Your task to perform on an android device: Turn on notifications for the Google Maps app Image 0: 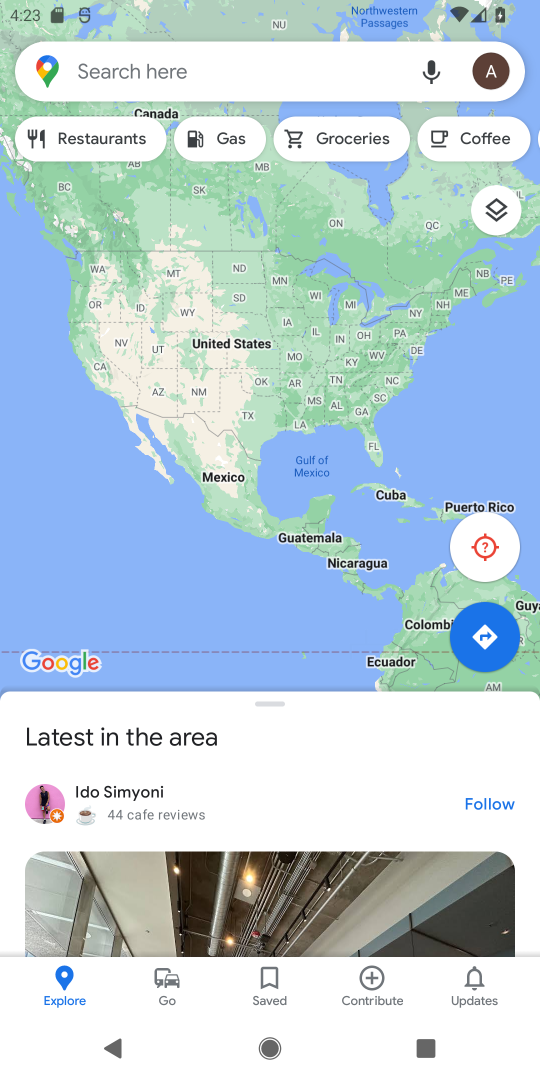
Step 0: press home button
Your task to perform on an android device: Turn on notifications for the Google Maps app Image 1: 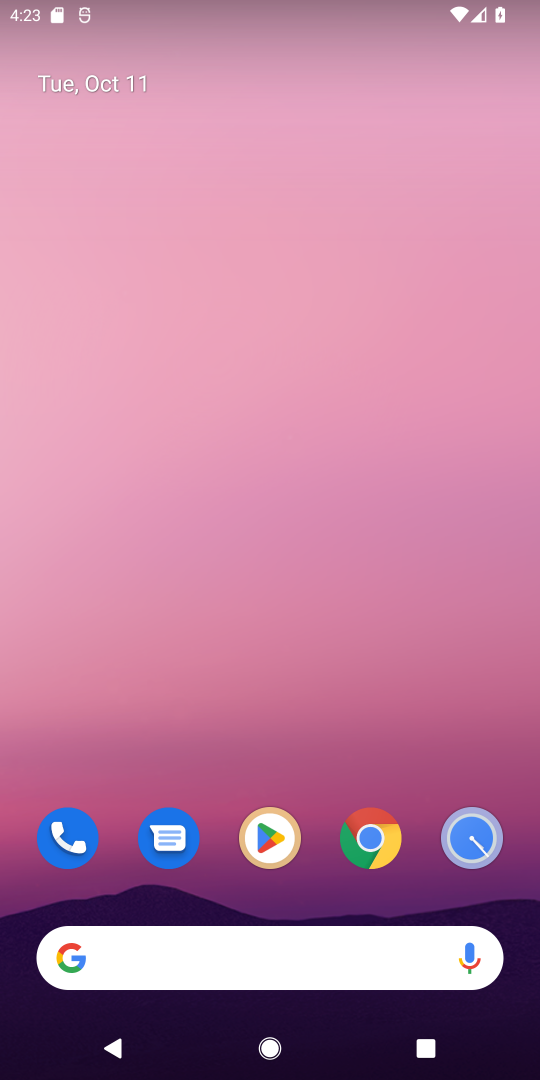
Step 1: drag from (261, 587) to (306, 301)
Your task to perform on an android device: Turn on notifications for the Google Maps app Image 2: 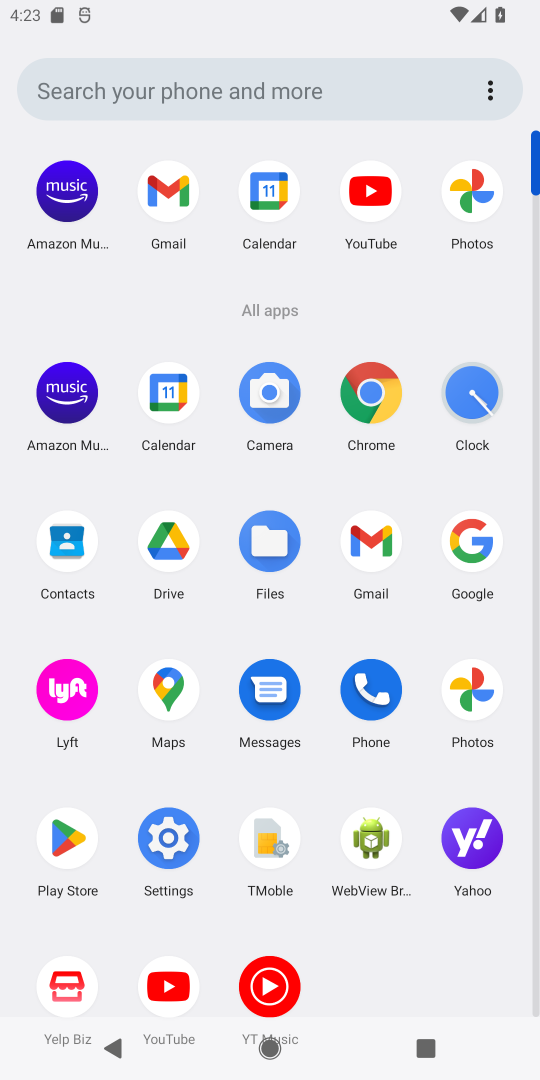
Step 2: click (185, 680)
Your task to perform on an android device: Turn on notifications for the Google Maps app Image 3: 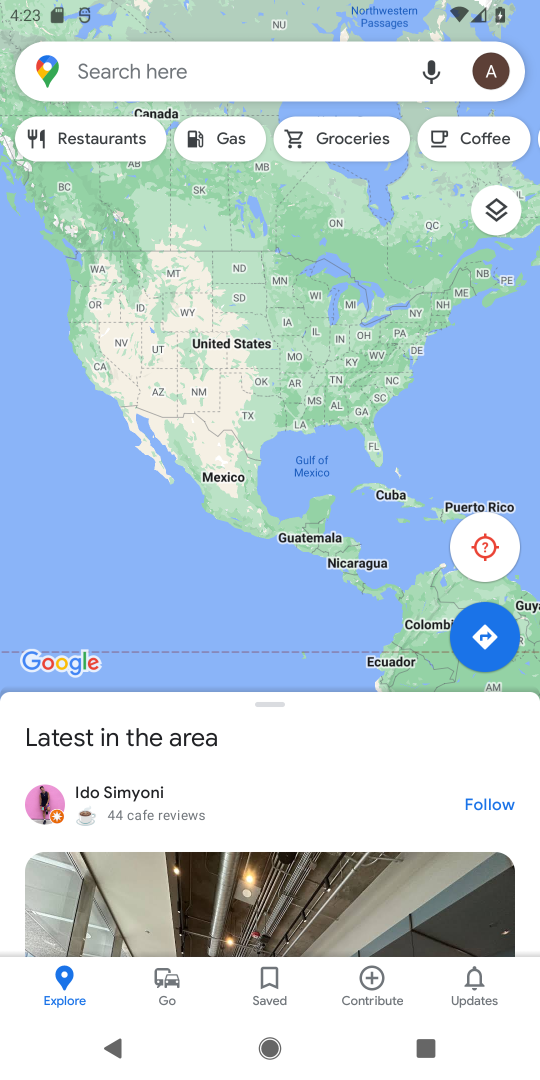
Step 3: click (484, 76)
Your task to perform on an android device: Turn on notifications for the Google Maps app Image 4: 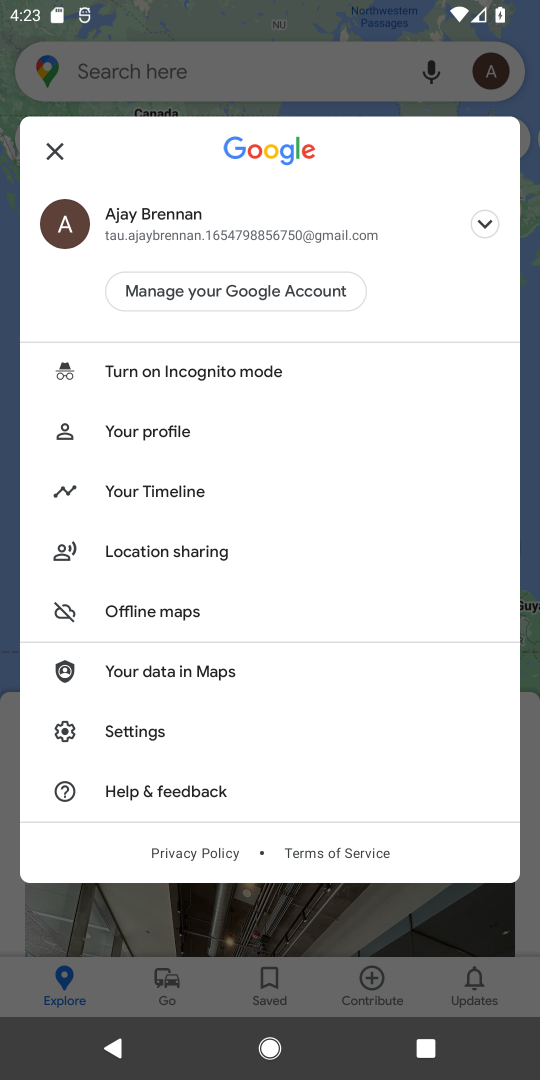
Step 4: drag from (263, 730) to (339, 476)
Your task to perform on an android device: Turn on notifications for the Google Maps app Image 5: 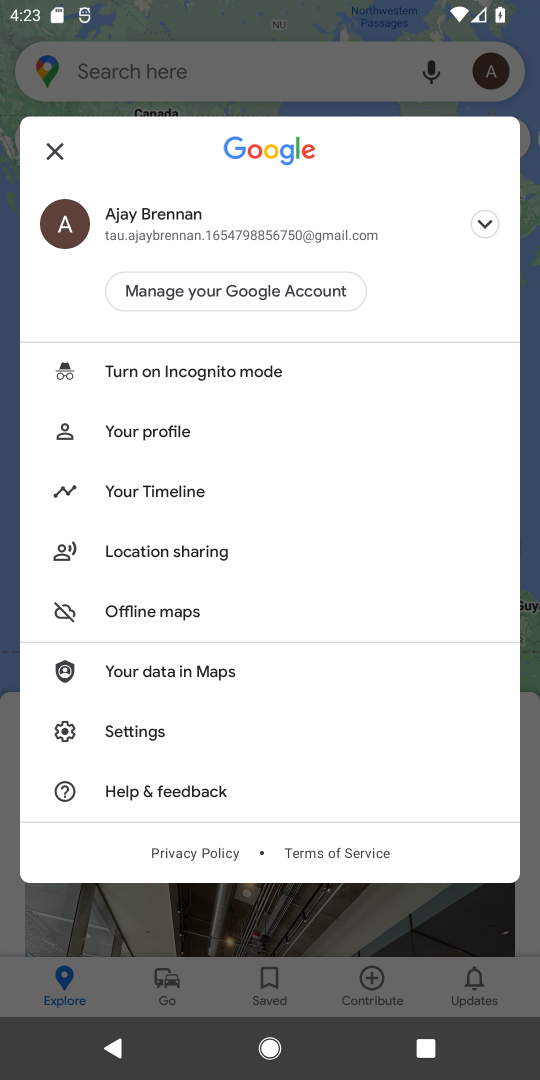
Step 5: click (50, 144)
Your task to perform on an android device: Turn on notifications for the Google Maps app Image 6: 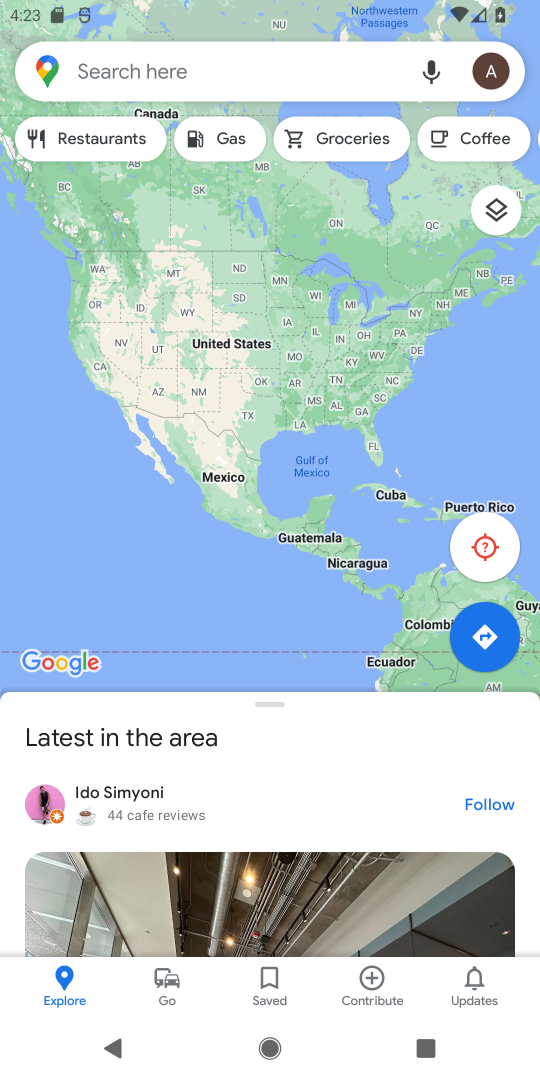
Step 6: drag from (176, 733) to (281, 260)
Your task to perform on an android device: Turn on notifications for the Google Maps app Image 7: 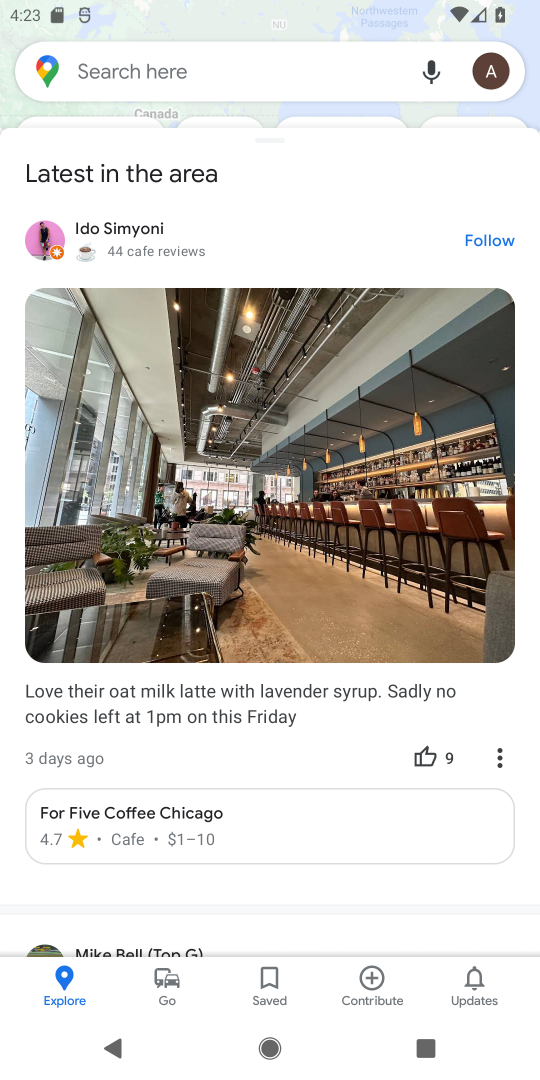
Step 7: drag from (253, 789) to (282, 426)
Your task to perform on an android device: Turn on notifications for the Google Maps app Image 8: 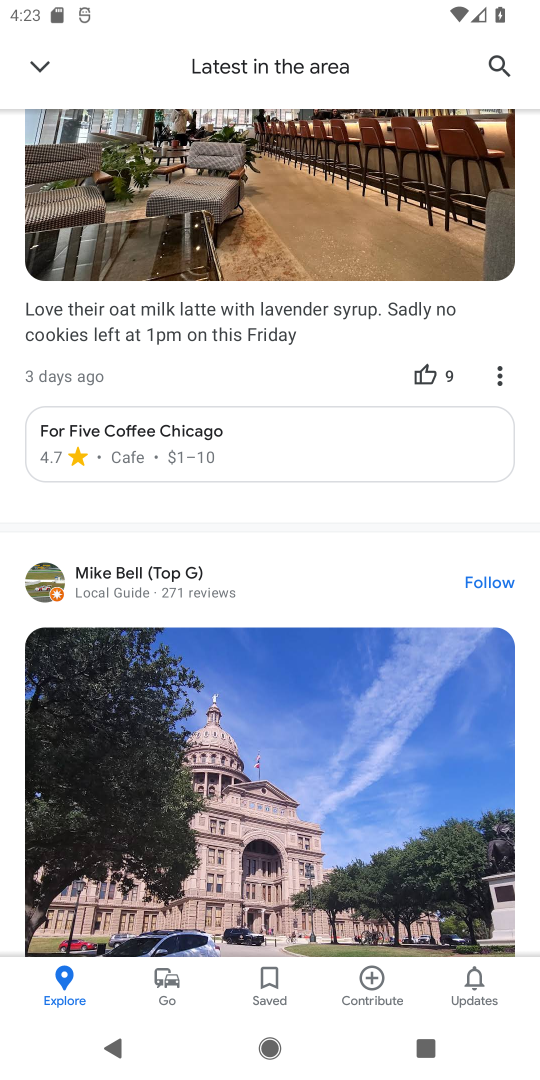
Step 8: drag from (196, 712) to (214, 411)
Your task to perform on an android device: Turn on notifications for the Google Maps app Image 9: 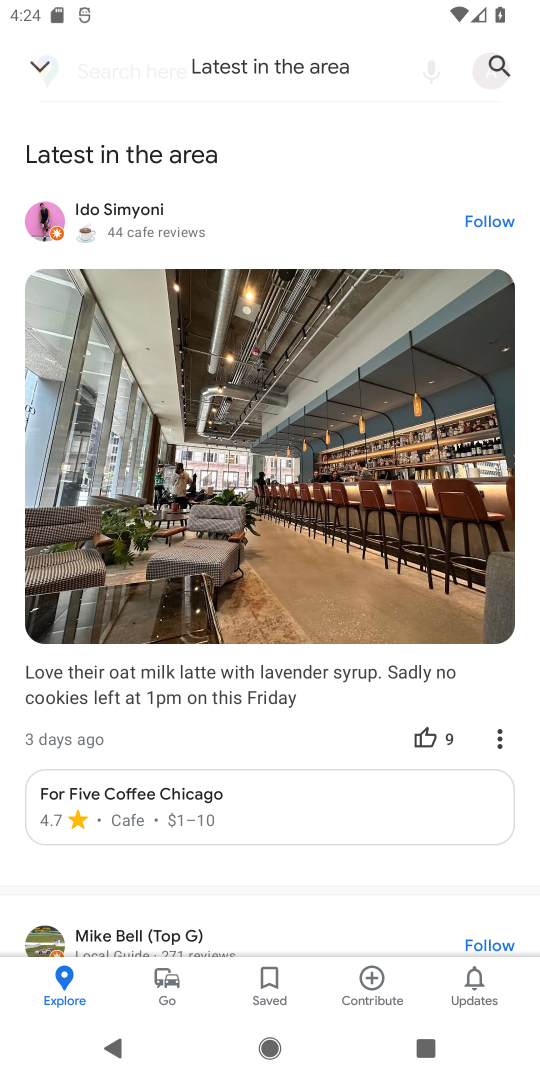
Step 9: drag from (203, 689) to (283, 336)
Your task to perform on an android device: Turn on notifications for the Google Maps app Image 10: 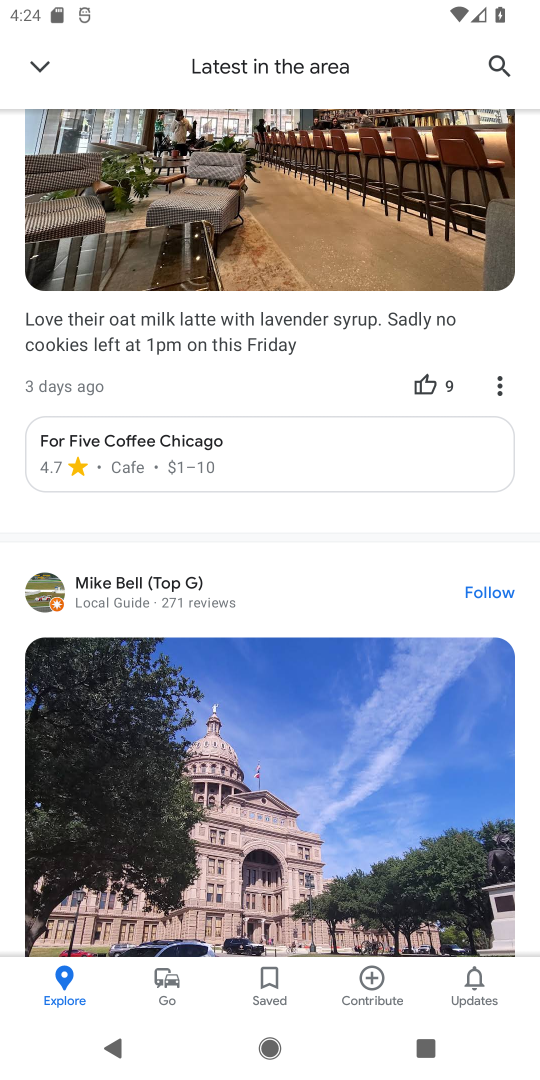
Step 10: drag from (190, 827) to (295, 340)
Your task to perform on an android device: Turn on notifications for the Google Maps app Image 11: 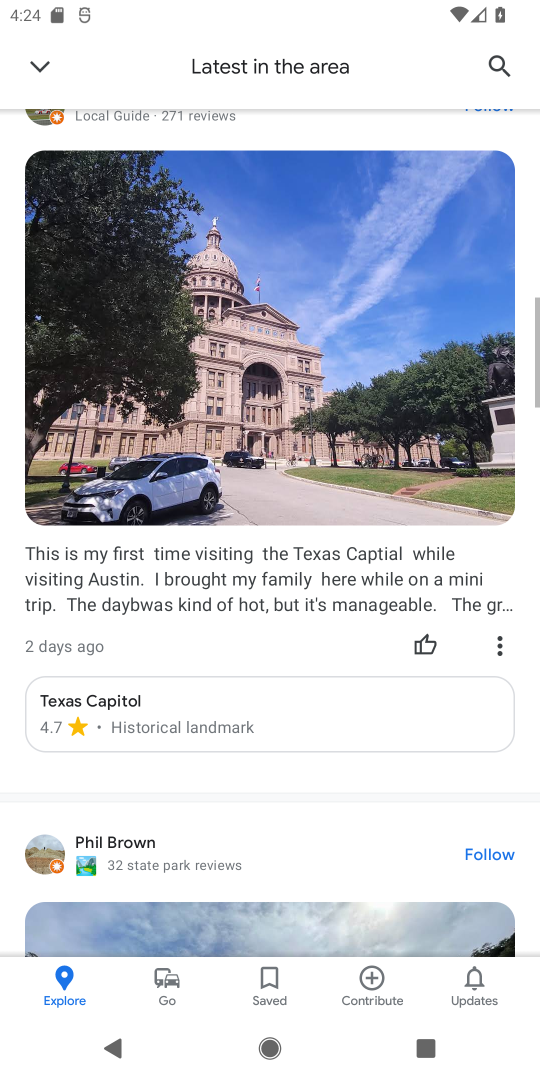
Step 11: drag from (284, 618) to (365, 333)
Your task to perform on an android device: Turn on notifications for the Google Maps app Image 12: 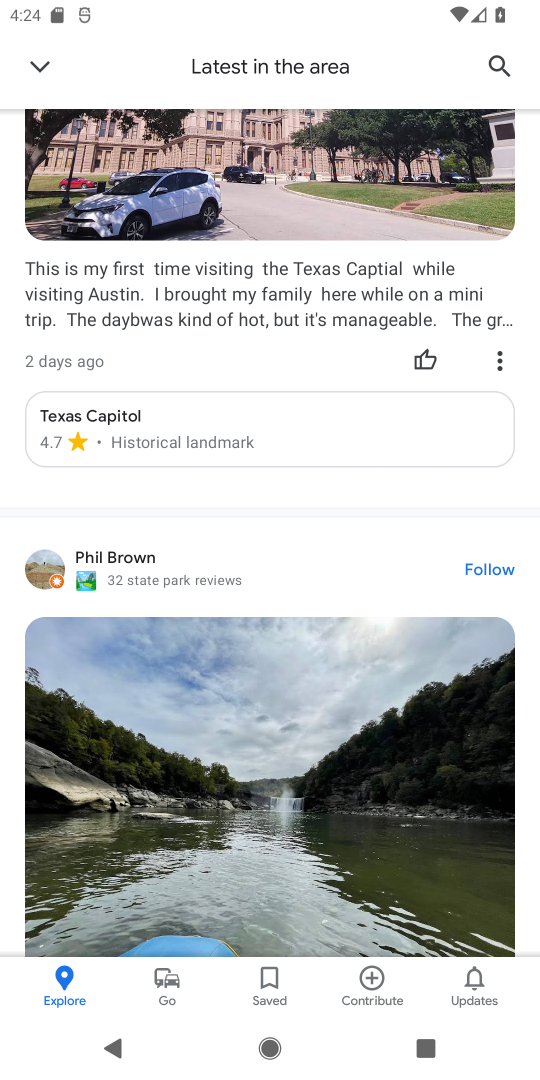
Step 12: drag from (228, 789) to (324, 369)
Your task to perform on an android device: Turn on notifications for the Google Maps app Image 13: 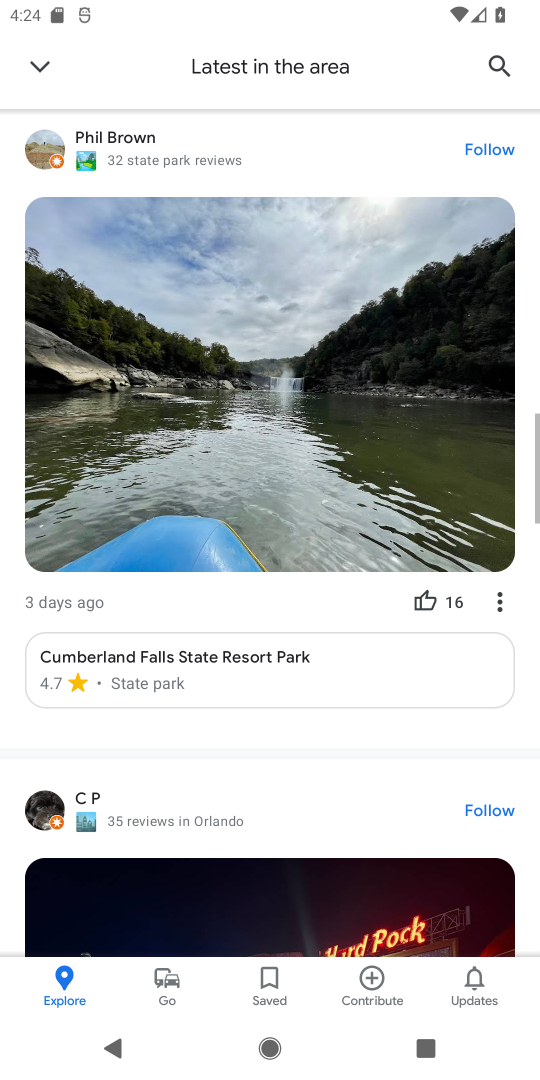
Step 13: drag from (268, 663) to (314, 316)
Your task to perform on an android device: Turn on notifications for the Google Maps app Image 14: 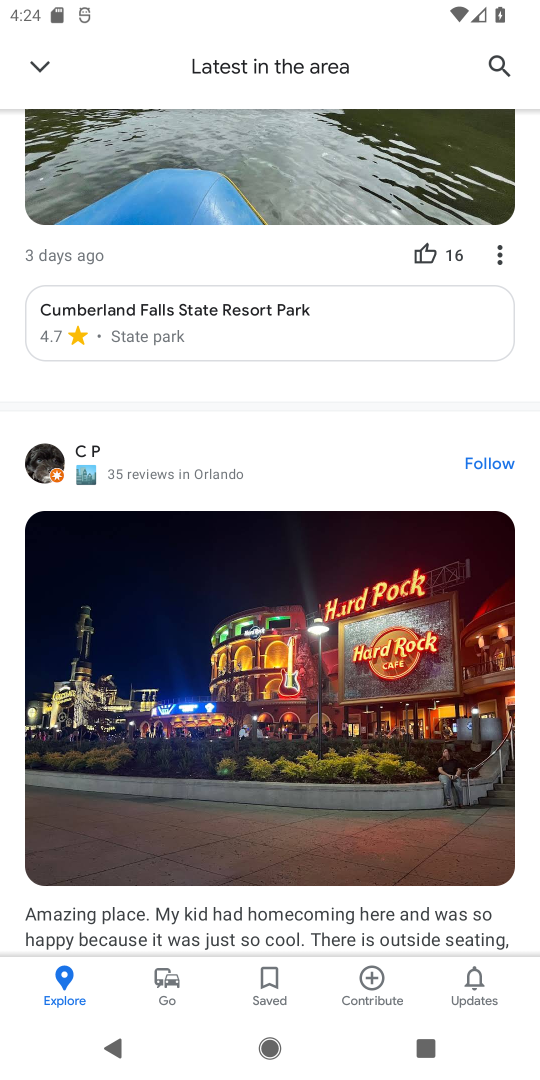
Step 14: drag from (190, 701) to (227, 462)
Your task to perform on an android device: Turn on notifications for the Google Maps app Image 15: 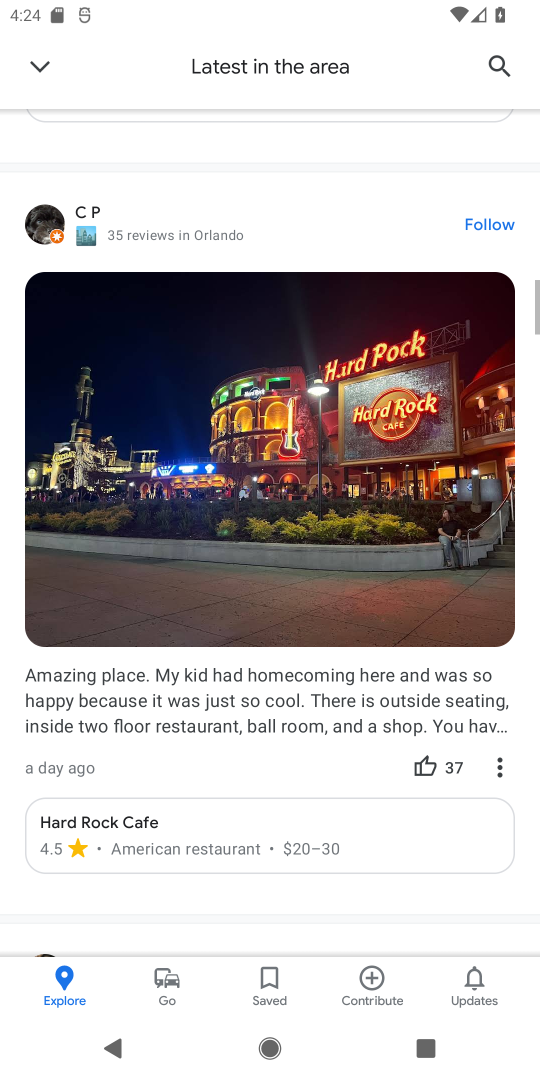
Step 15: drag from (196, 893) to (381, 475)
Your task to perform on an android device: Turn on notifications for the Google Maps app Image 16: 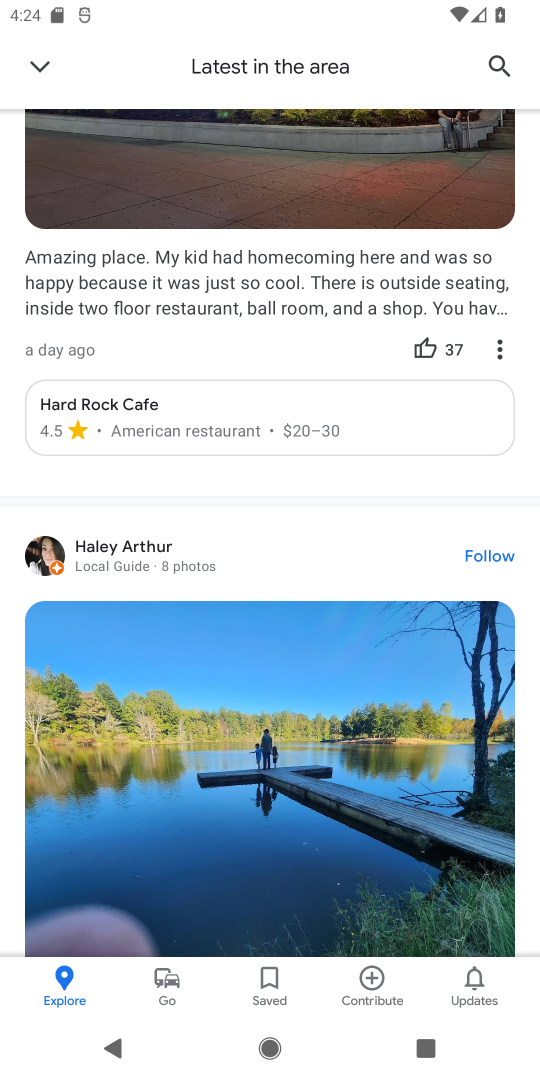
Step 16: drag from (233, 676) to (270, 482)
Your task to perform on an android device: Turn on notifications for the Google Maps app Image 17: 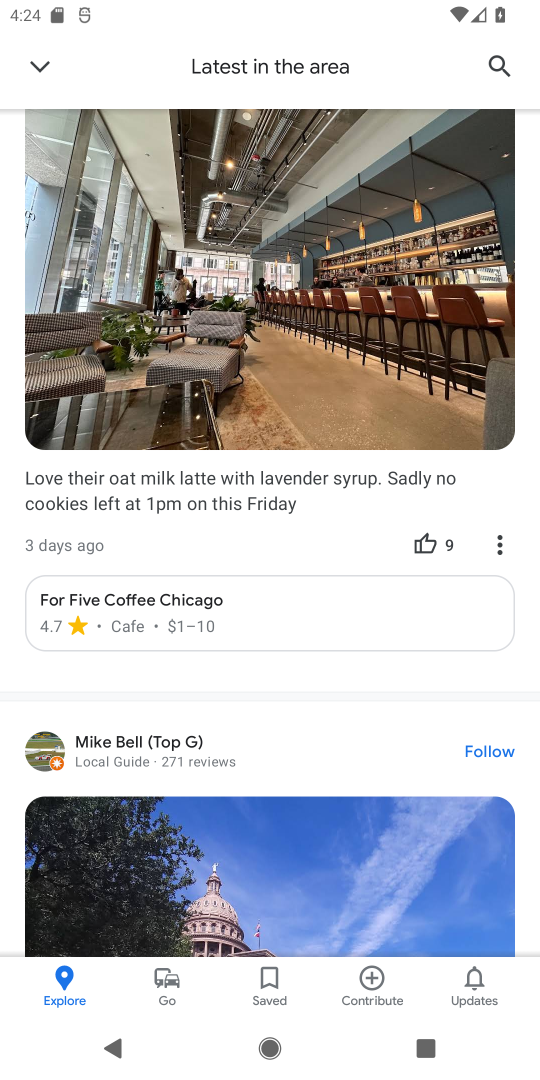
Step 17: drag from (201, 734) to (222, 658)
Your task to perform on an android device: Turn on notifications for the Google Maps app Image 18: 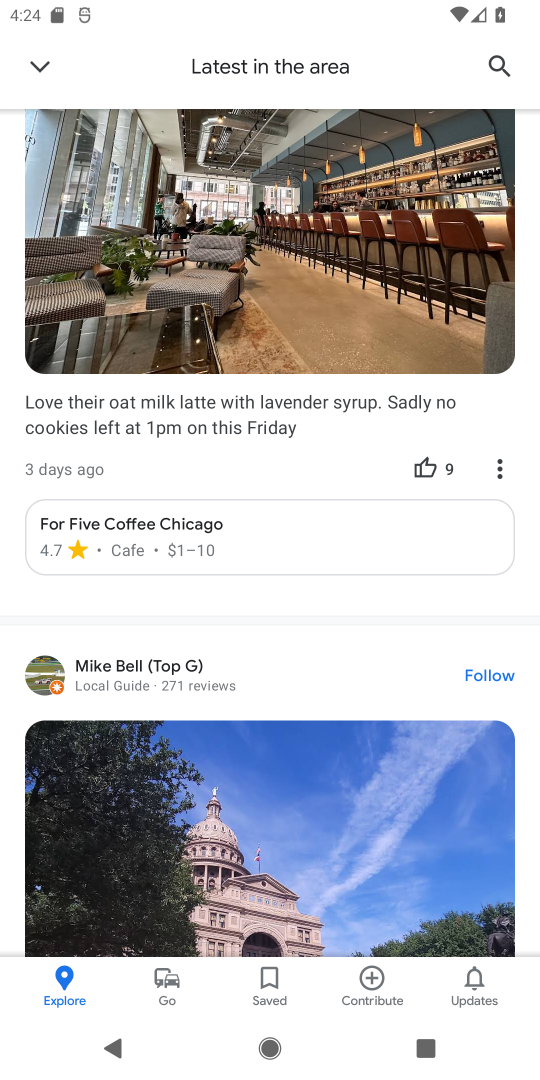
Step 18: drag from (156, 750) to (272, 293)
Your task to perform on an android device: Turn on notifications for the Google Maps app Image 19: 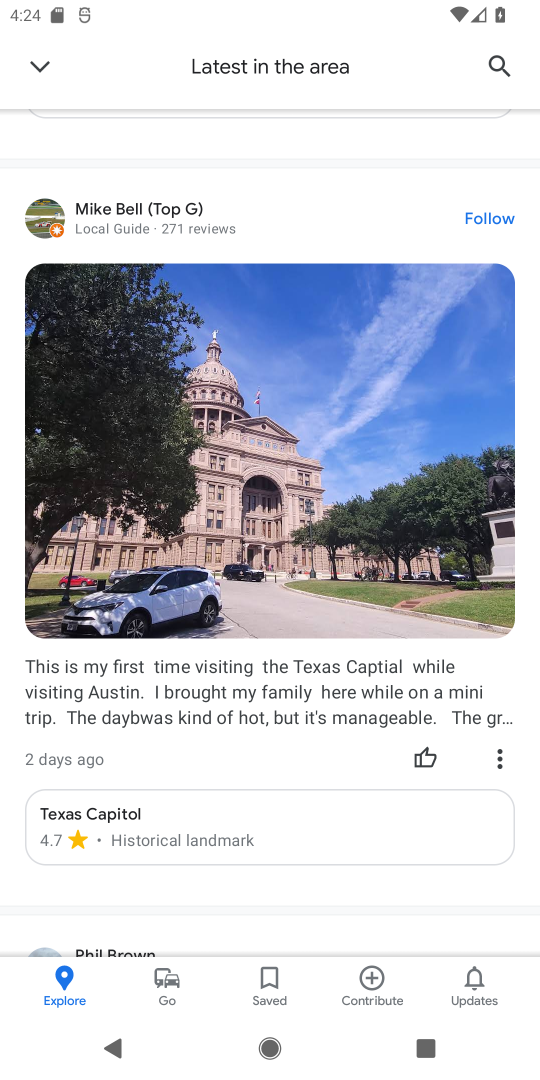
Step 19: drag from (246, 585) to (272, 348)
Your task to perform on an android device: Turn on notifications for the Google Maps app Image 20: 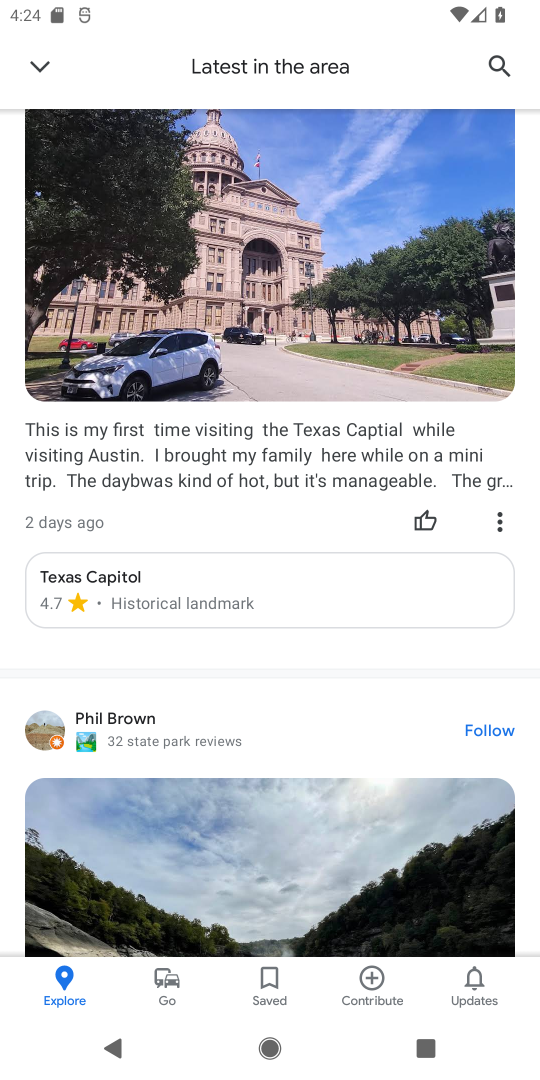
Step 20: drag from (197, 668) to (261, 425)
Your task to perform on an android device: Turn on notifications for the Google Maps app Image 21: 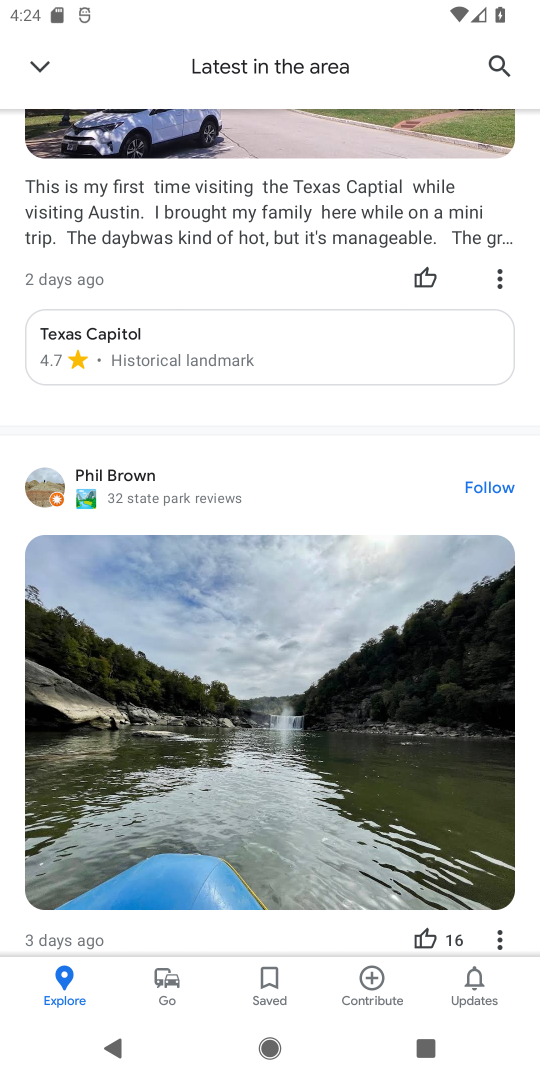
Step 21: drag from (348, 785) to (360, 537)
Your task to perform on an android device: Turn on notifications for the Google Maps app Image 22: 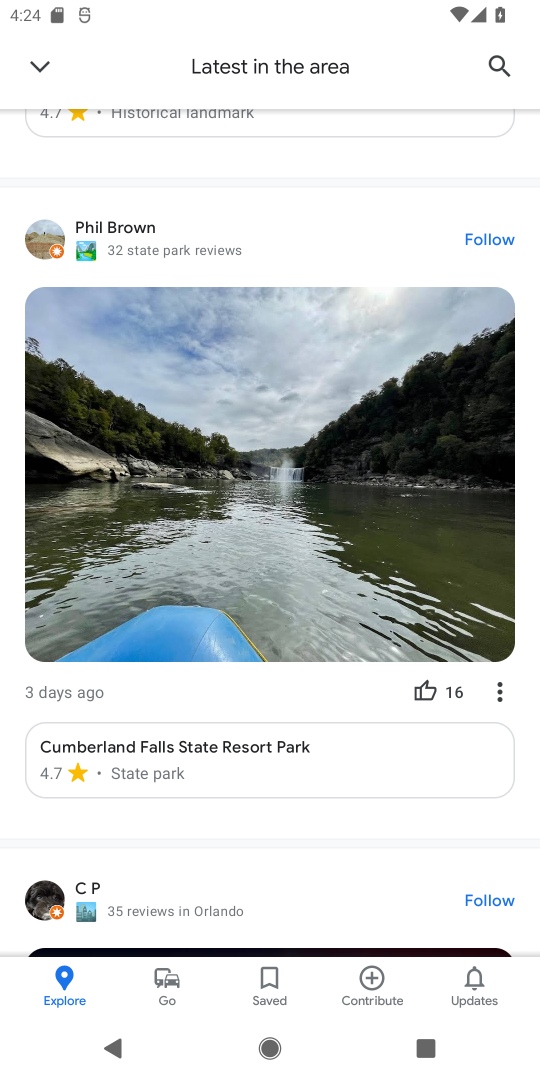
Step 22: drag from (115, 868) to (241, 266)
Your task to perform on an android device: Turn on notifications for the Google Maps app Image 23: 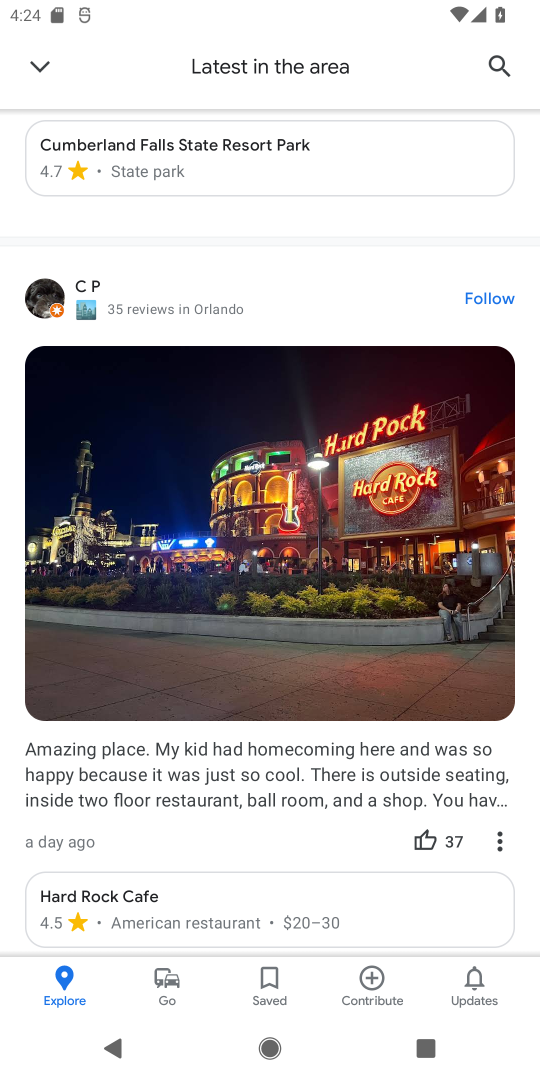
Step 23: drag from (148, 782) to (229, 373)
Your task to perform on an android device: Turn on notifications for the Google Maps app Image 24: 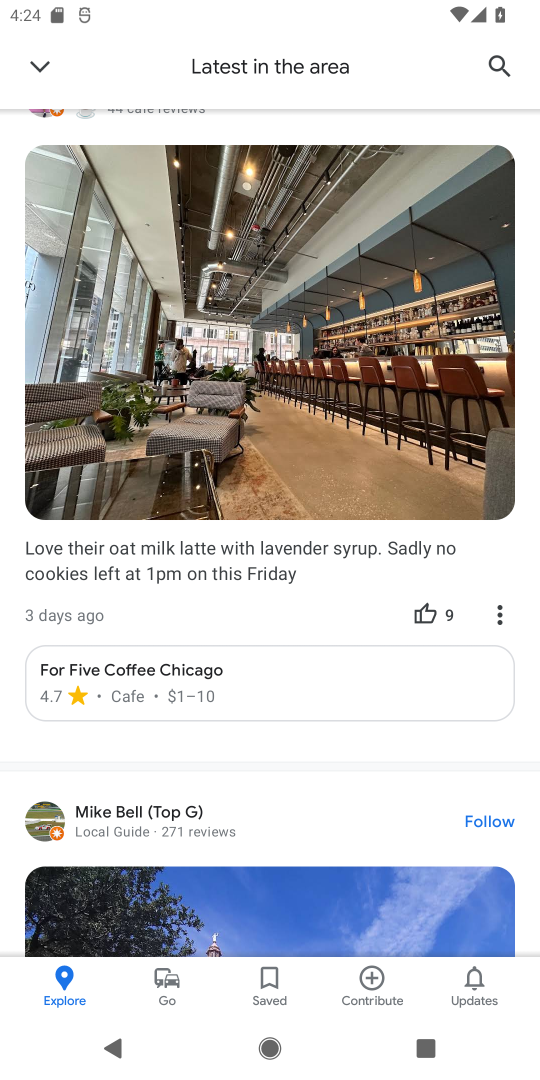
Step 24: drag from (371, 615) to (430, 449)
Your task to perform on an android device: Turn on notifications for the Google Maps app Image 25: 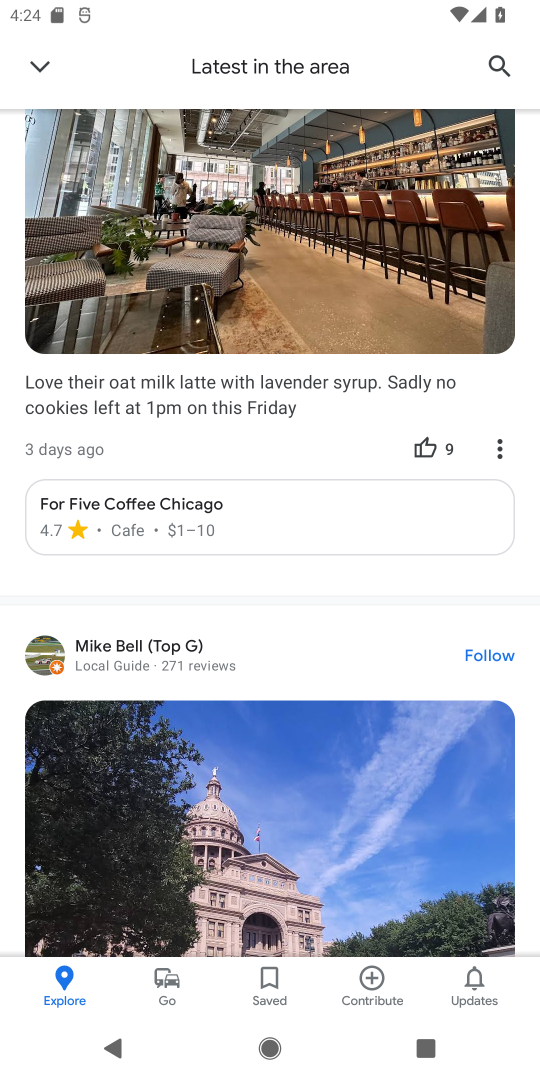
Step 25: drag from (217, 757) to (339, 390)
Your task to perform on an android device: Turn on notifications for the Google Maps app Image 26: 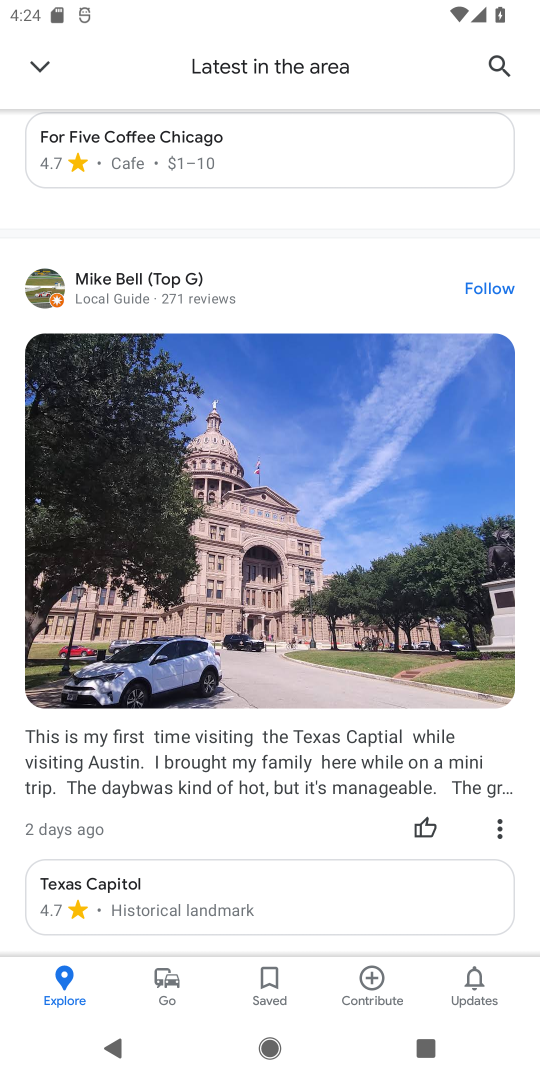
Step 26: drag from (248, 777) to (290, 350)
Your task to perform on an android device: Turn on notifications for the Google Maps app Image 27: 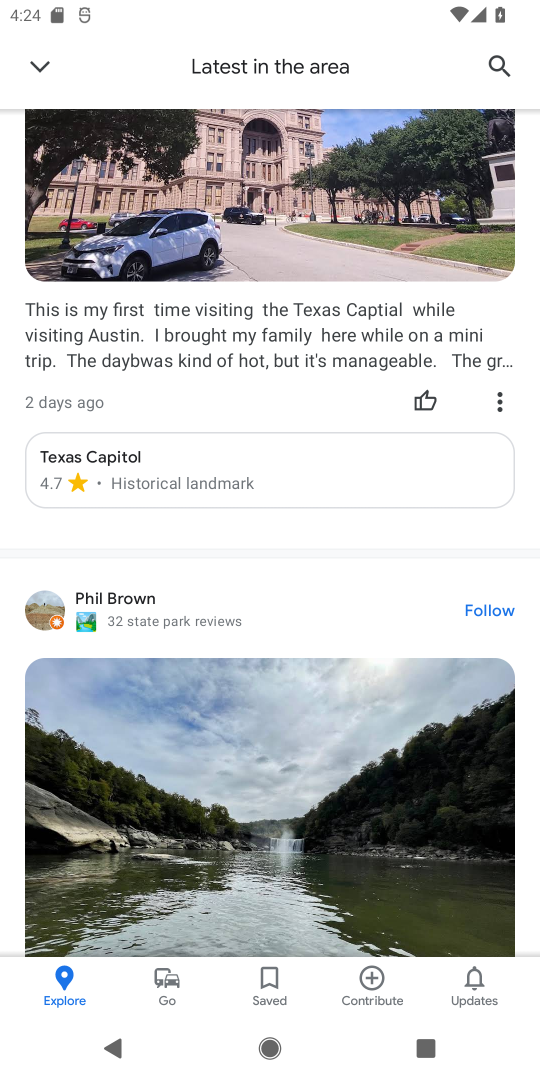
Step 27: drag from (225, 693) to (282, 378)
Your task to perform on an android device: Turn on notifications for the Google Maps app Image 28: 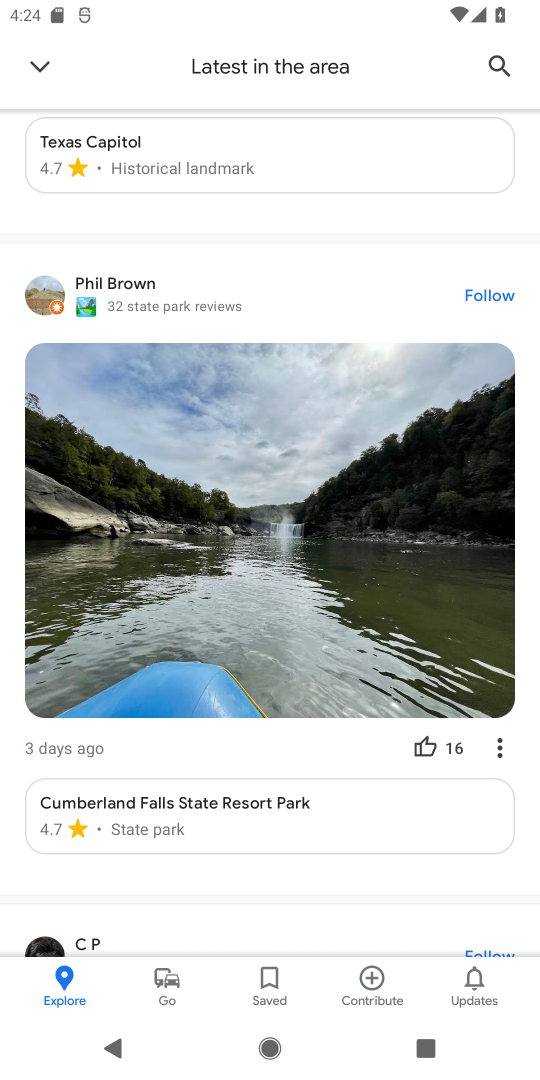
Step 28: drag from (257, 769) to (321, 447)
Your task to perform on an android device: Turn on notifications for the Google Maps app Image 29: 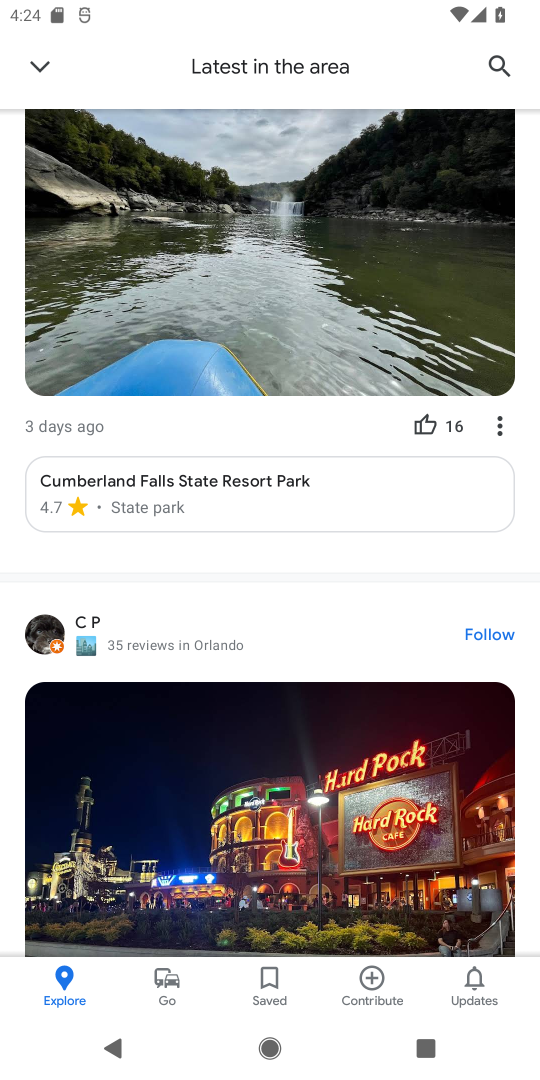
Step 29: drag from (219, 721) to (281, 527)
Your task to perform on an android device: Turn on notifications for the Google Maps app Image 30: 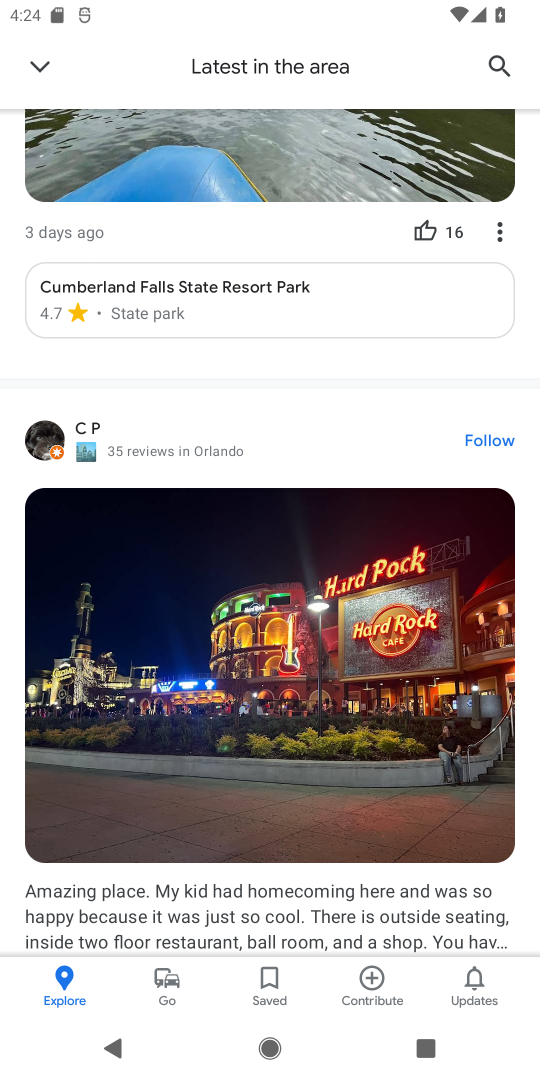
Step 30: drag from (233, 303) to (235, 750)
Your task to perform on an android device: Turn on notifications for the Google Maps app Image 31: 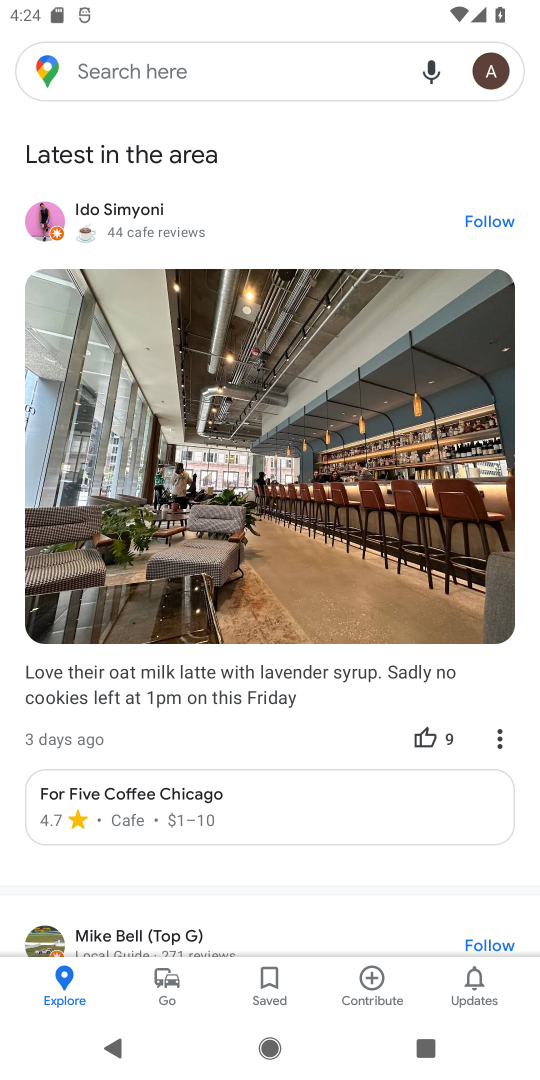
Step 31: click (177, 64)
Your task to perform on an android device: Turn on notifications for the Google Maps app Image 32: 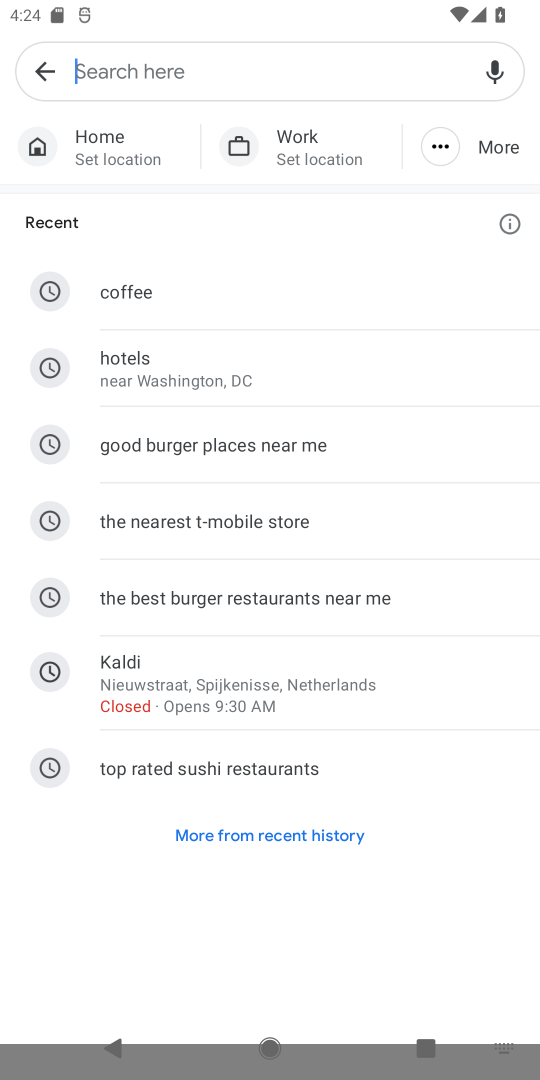
Step 32: click (56, 59)
Your task to perform on an android device: Turn on notifications for the Google Maps app Image 33: 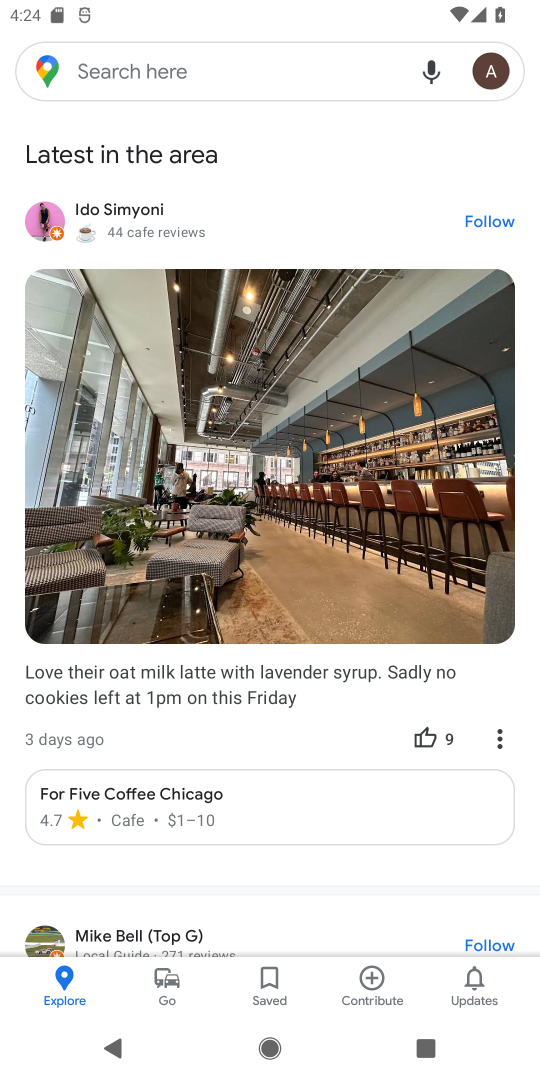
Step 33: click (57, 66)
Your task to perform on an android device: Turn on notifications for the Google Maps app Image 34: 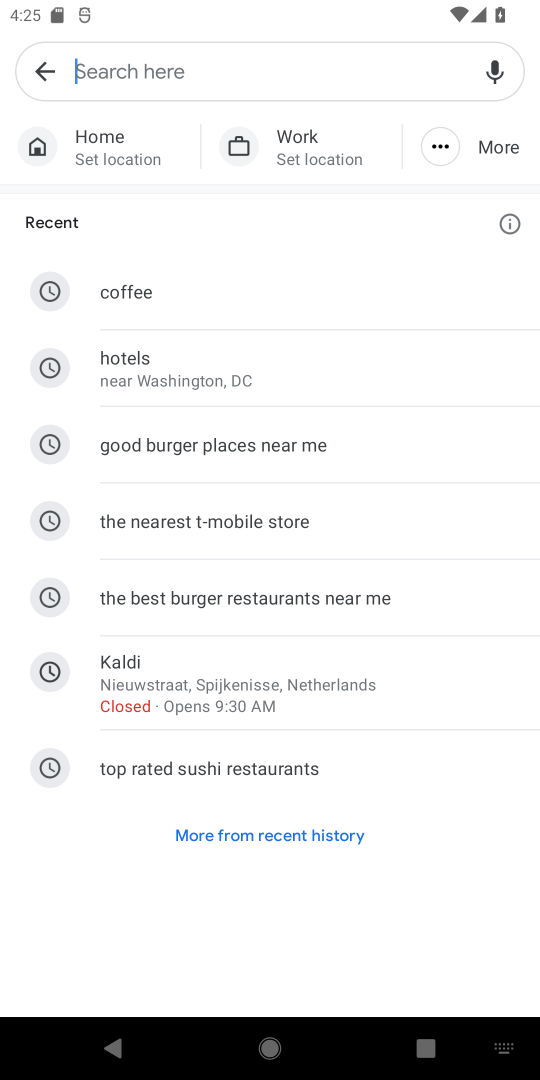
Step 34: type "google map"
Your task to perform on an android device: Turn on notifications for the Google Maps app Image 35: 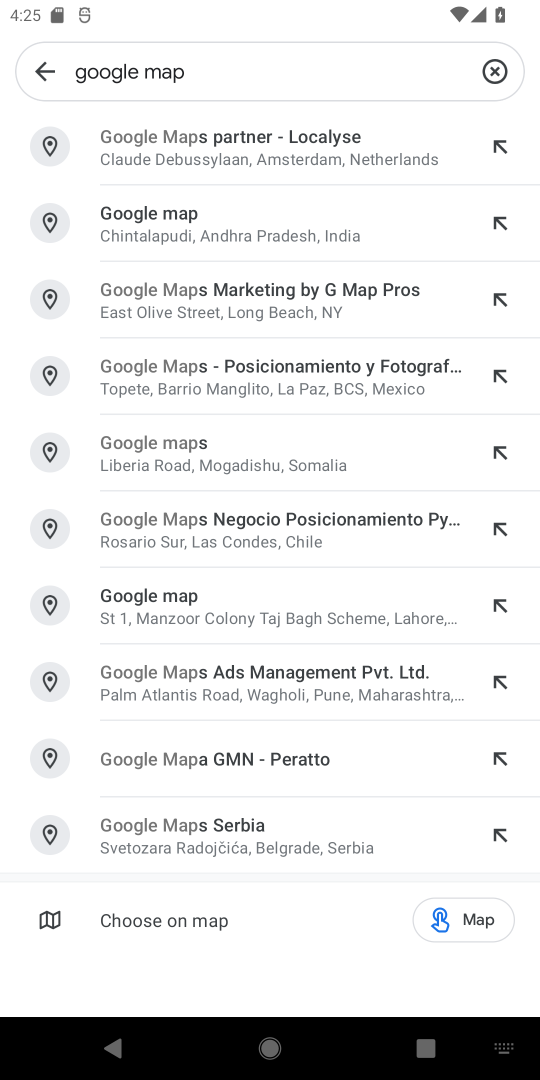
Step 35: click (157, 226)
Your task to perform on an android device: Turn on notifications for the Google Maps app Image 36: 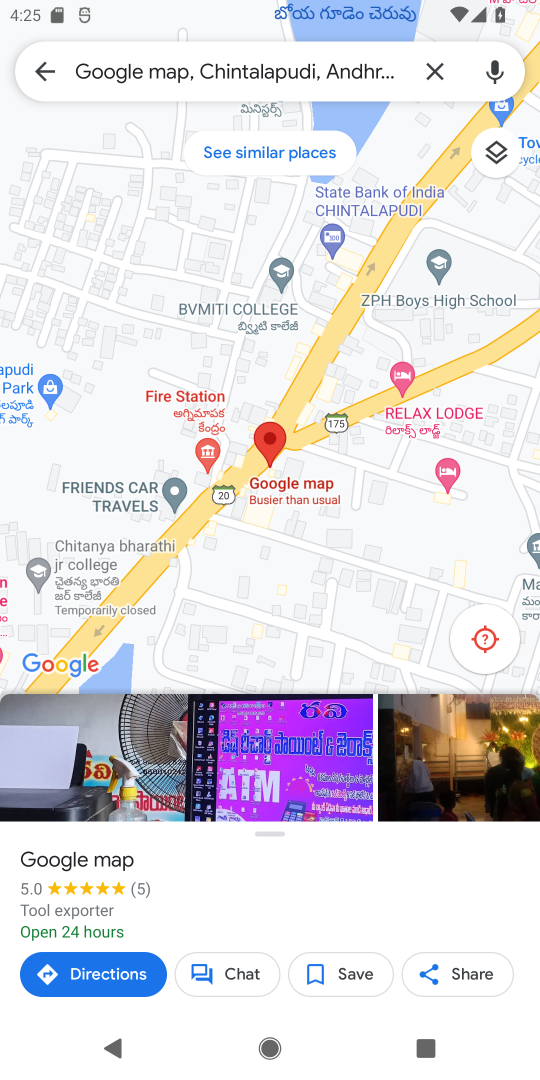
Step 36: task complete